Your task to perform on an android device: turn on javascript in the chrome app Image 0: 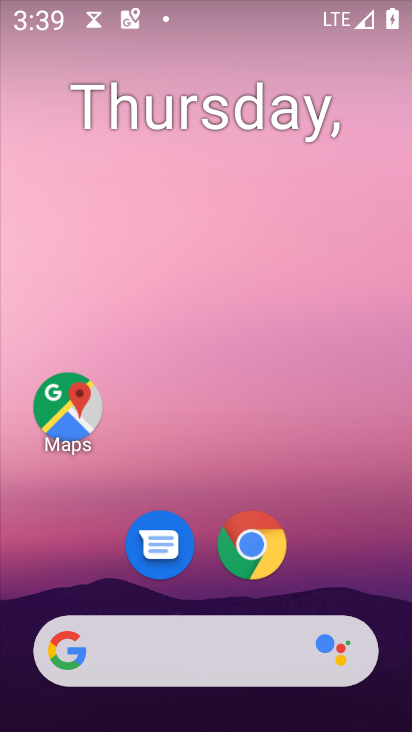
Step 0: click (281, 551)
Your task to perform on an android device: turn on javascript in the chrome app Image 1: 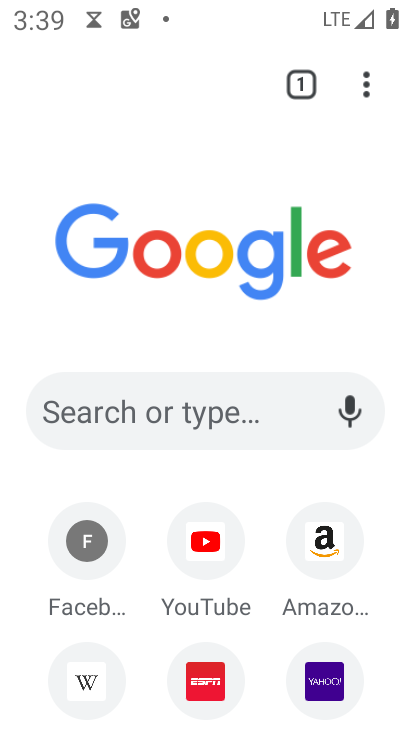
Step 1: drag from (368, 75) to (119, 606)
Your task to perform on an android device: turn on javascript in the chrome app Image 2: 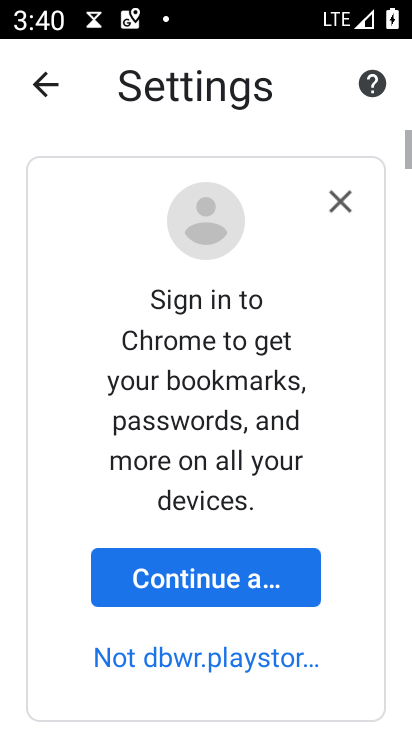
Step 2: drag from (174, 640) to (207, 163)
Your task to perform on an android device: turn on javascript in the chrome app Image 3: 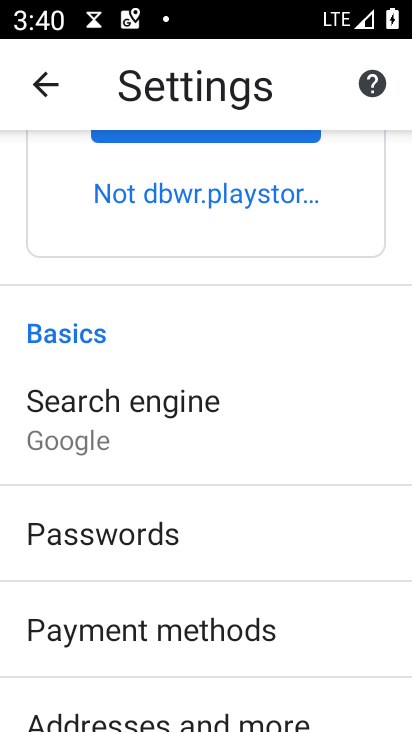
Step 3: drag from (188, 575) to (222, 179)
Your task to perform on an android device: turn on javascript in the chrome app Image 4: 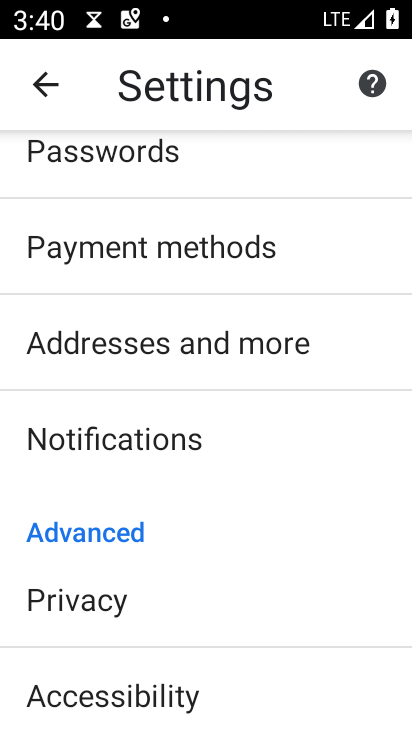
Step 4: drag from (171, 637) to (241, 226)
Your task to perform on an android device: turn on javascript in the chrome app Image 5: 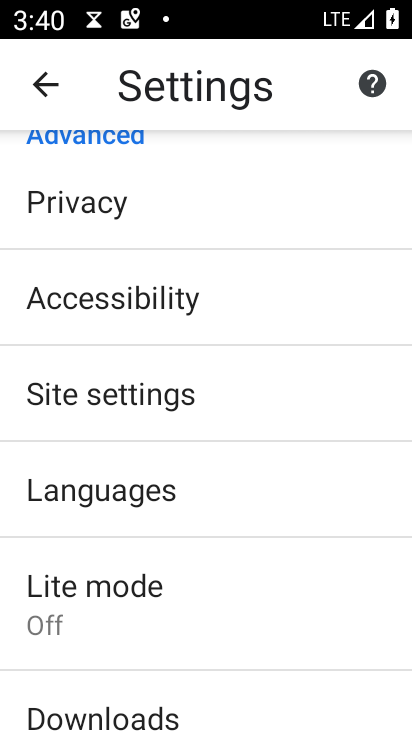
Step 5: click (163, 400)
Your task to perform on an android device: turn on javascript in the chrome app Image 6: 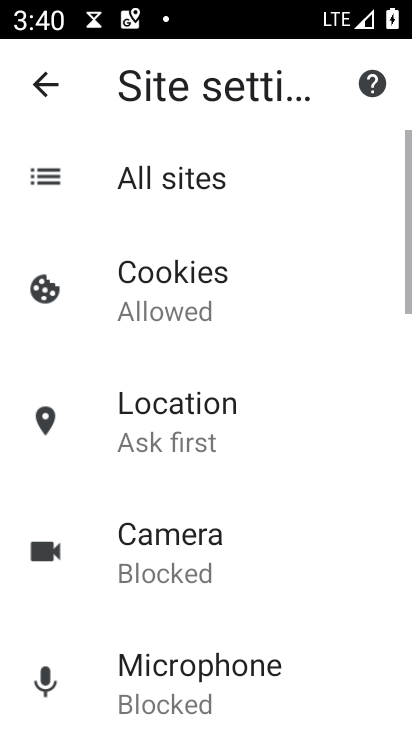
Step 6: drag from (182, 643) to (264, 219)
Your task to perform on an android device: turn on javascript in the chrome app Image 7: 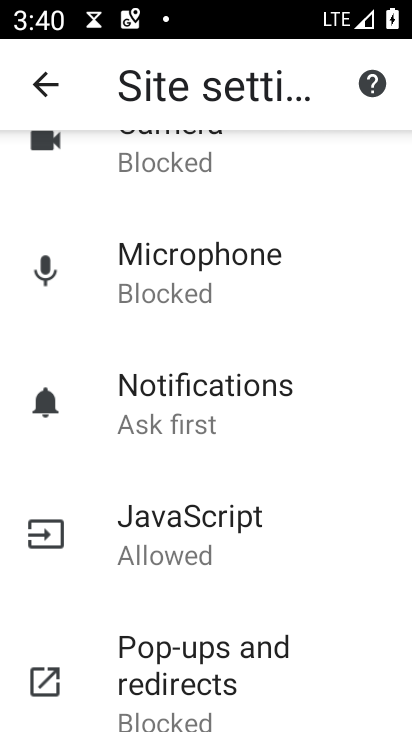
Step 7: click (153, 521)
Your task to perform on an android device: turn on javascript in the chrome app Image 8: 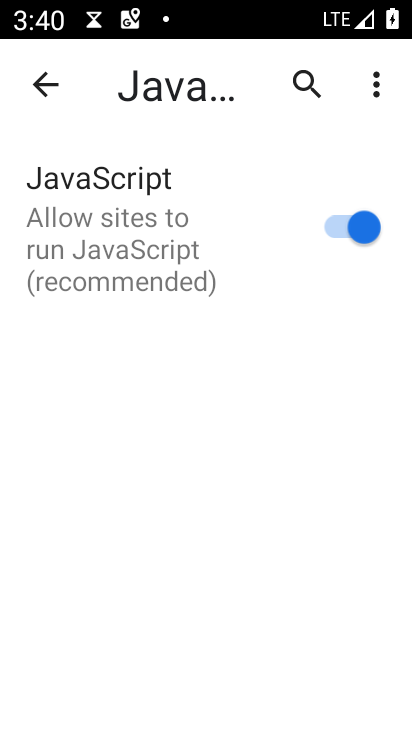
Step 8: task complete